Your task to perform on an android device: Go to notification settings Image 0: 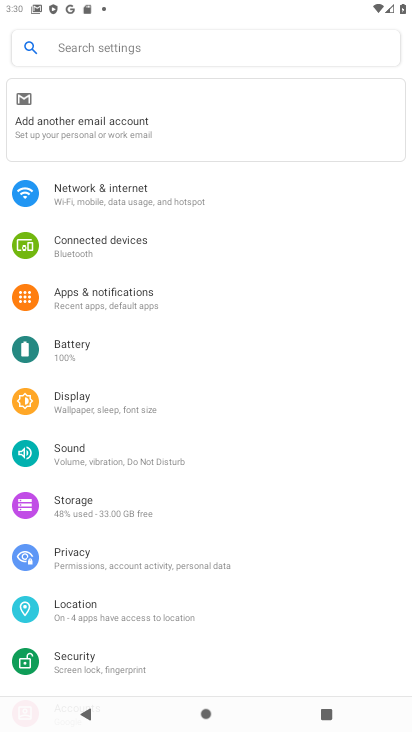
Step 0: click (156, 287)
Your task to perform on an android device: Go to notification settings Image 1: 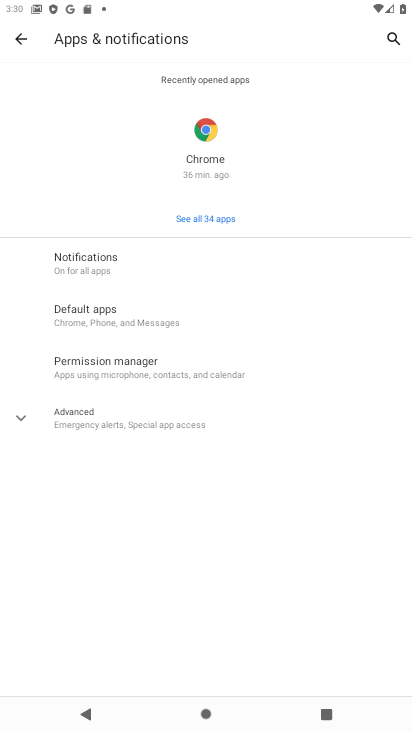
Step 1: click (112, 257)
Your task to perform on an android device: Go to notification settings Image 2: 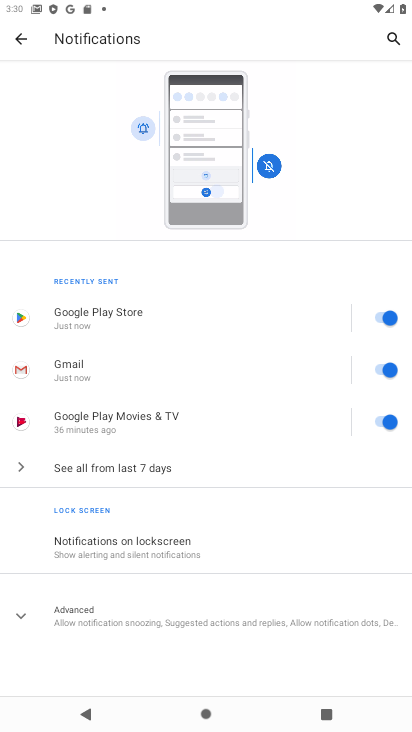
Step 2: click (33, 610)
Your task to perform on an android device: Go to notification settings Image 3: 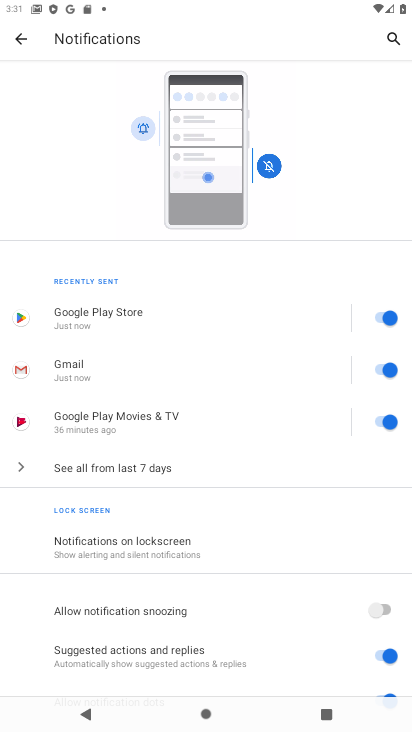
Step 3: task complete